Your task to perform on an android device: turn off sleep mode Image 0: 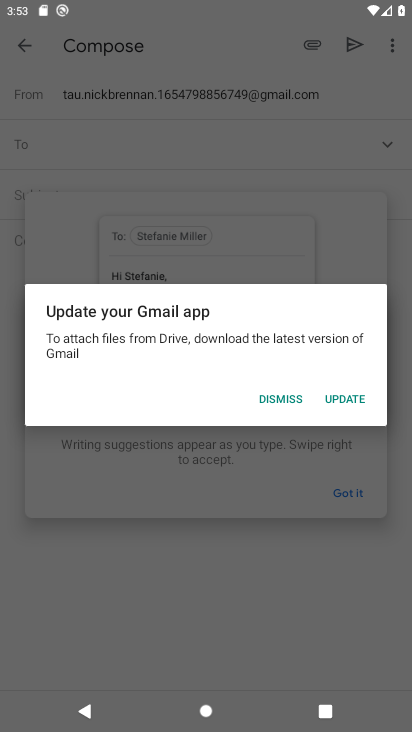
Step 0: press home button
Your task to perform on an android device: turn off sleep mode Image 1: 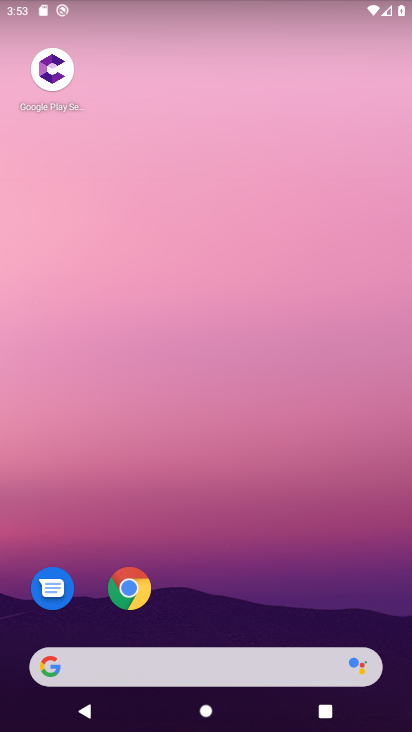
Step 1: drag from (199, 619) to (210, 153)
Your task to perform on an android device: turn off sleep mode Image 2: 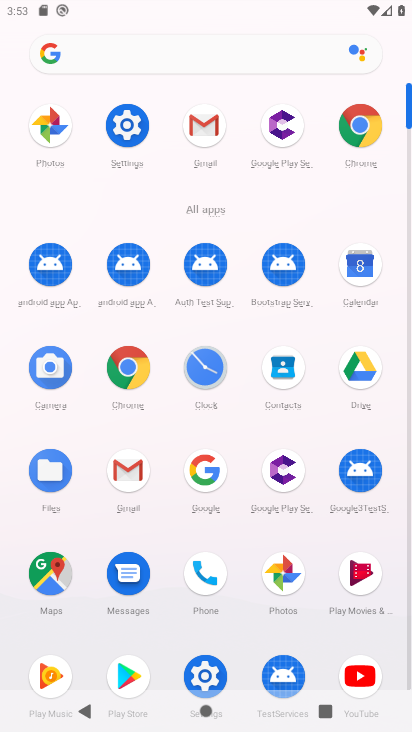
Step 2: click (202, 669)
Your task to perform on an android device: turn off sleep mode Image 3: 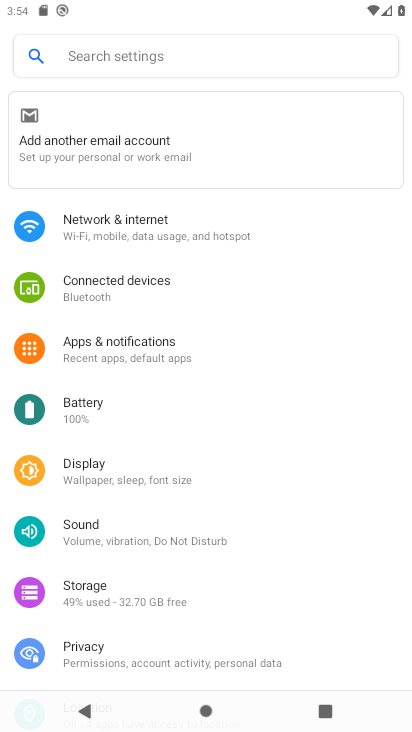
Step 3: click (146, 51)
Your task to perform on an android device: turn off sleep mode Image 4: 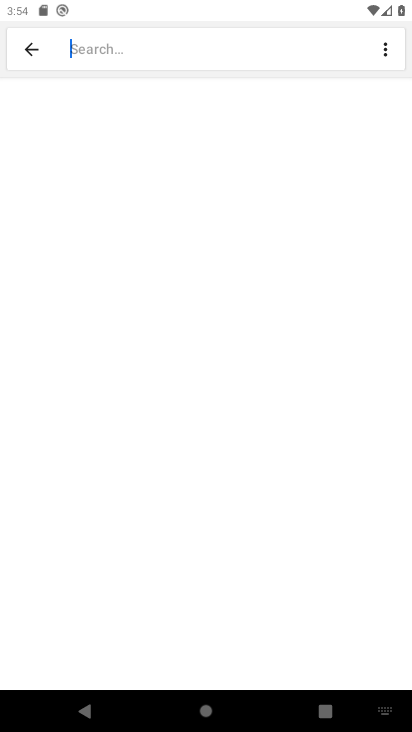
Step 4: type "sleep mode"
Your task to perform on an android device: turn off sleep mode Image 5: 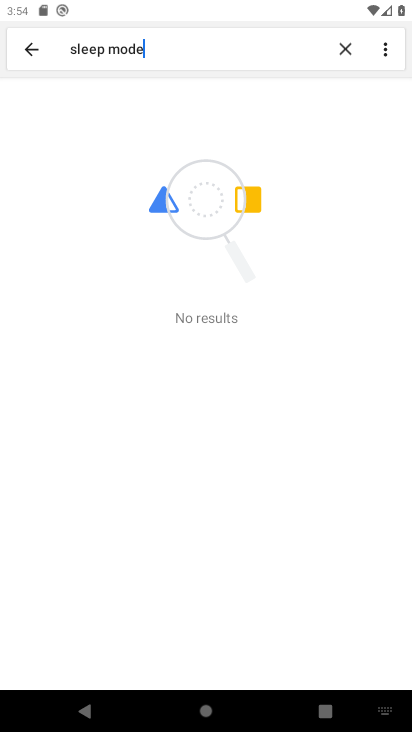
Step 5: task complete